Your task to perform on an android device: Go to Yahoo.com Image 0: 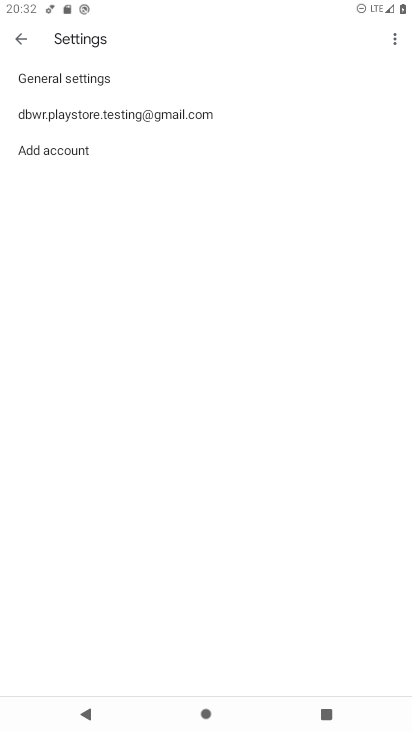
Step 0: press home button
Your task to perform on an android device: Go to Yahoo.com Image 1: 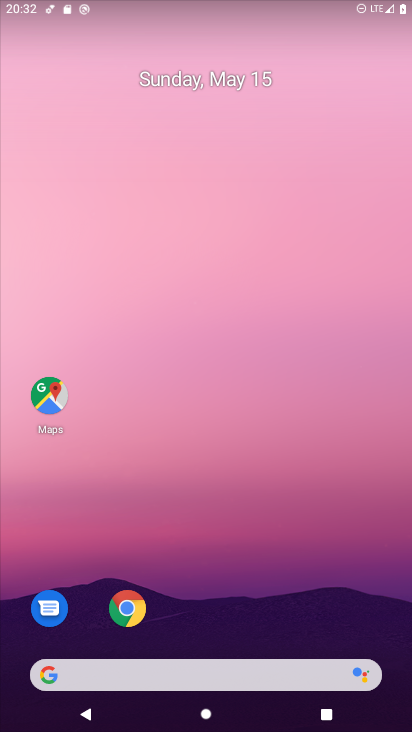
Step 1: click (128, 608)
Your task to perform on an android device: Go to Yahoo.com Image 2: 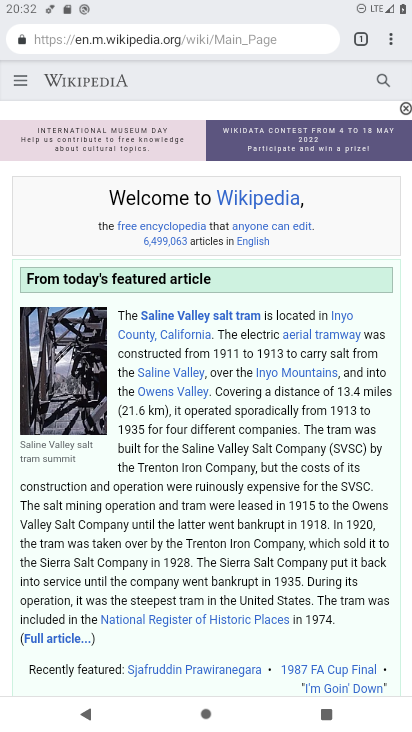
Step 2: press back button
Your task to perform on an android device: Go to Yahoo.com Image 3: 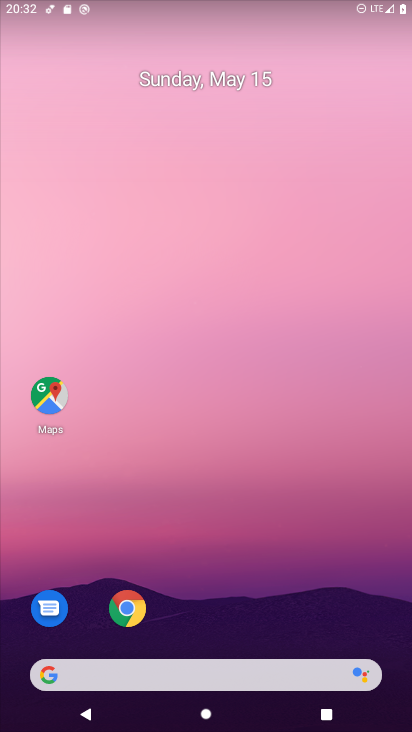
Step 3: click (129, 598)
Your task to perform on an android device: Go to Yahoo.com Image 4: 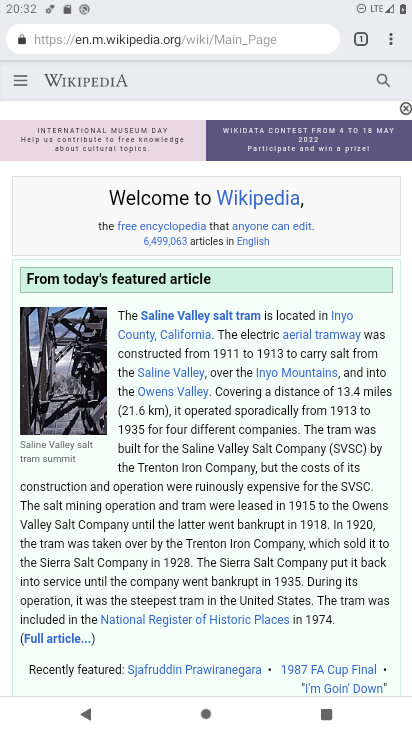
Step 4: click (292, 37)
Your task to perform on an android device: Go to Yahoo.com Image 5: 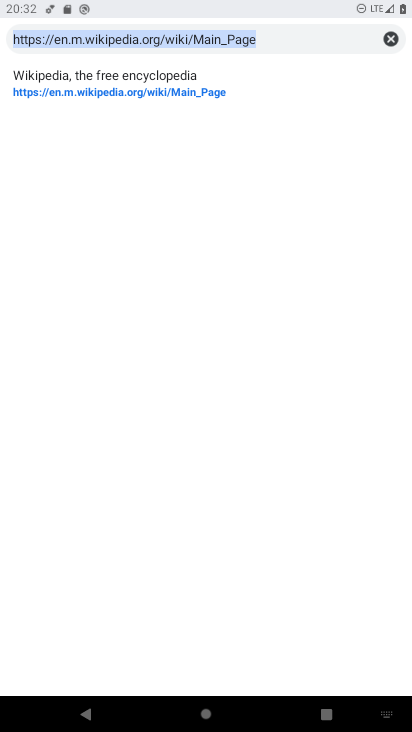
Step 5: click (394, 37)
Your task to perform on an android device: Go to Yahoo.com Image 6: 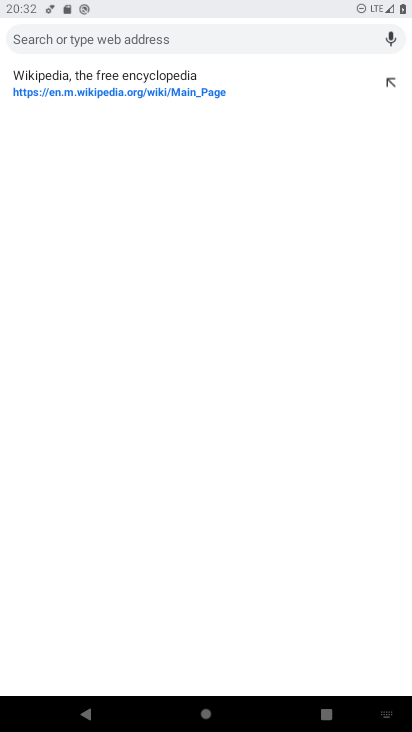
Step 6: type "yahoo.com"
Your task to perform on an android device: Go to Yahoo.com Image 7: 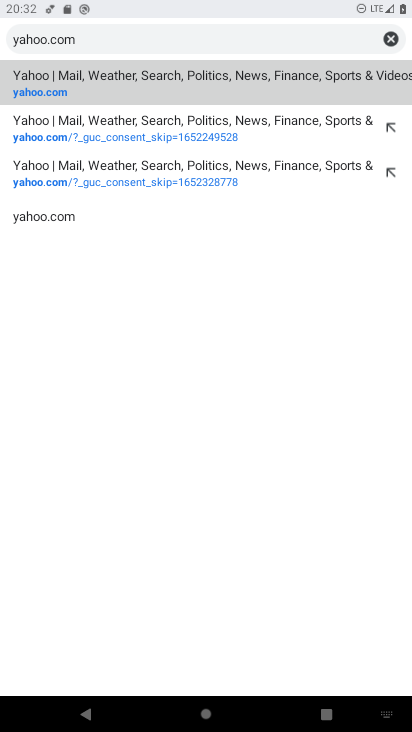
Step 7: click (96, 89)
Your task to perform on an android device: Go to Yahoo.com Image 8: 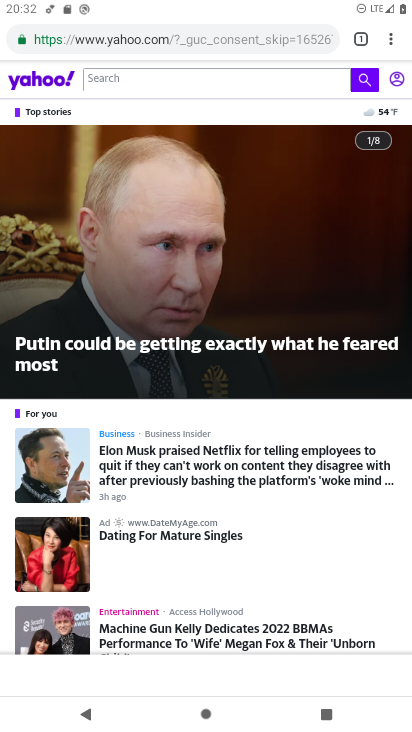
Step 8: task complete